Your task to perform on an android device: What time is it? Image 0: 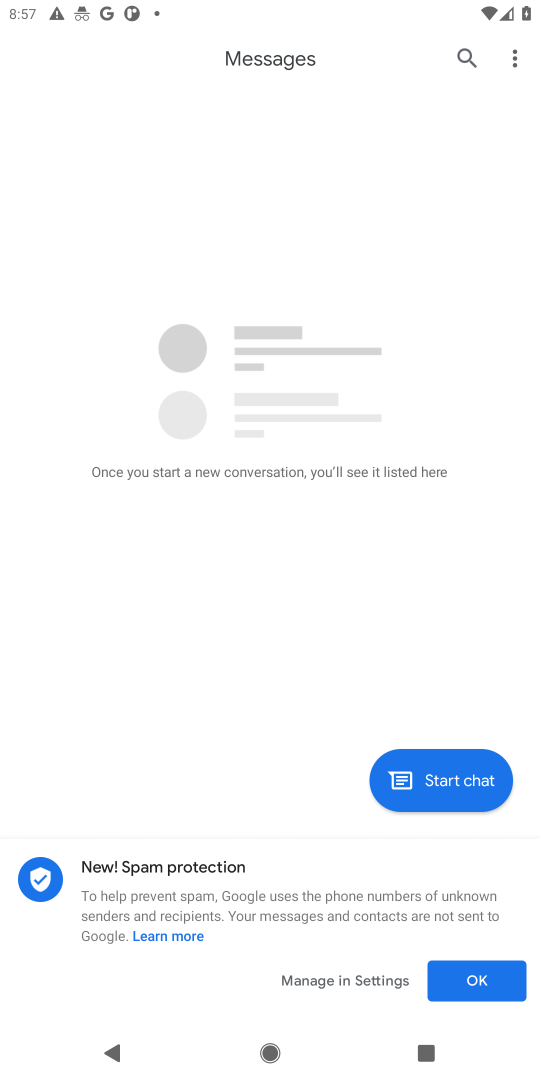
Step 0: press home button
Your task to perform on an android device: What time is it? Image 1: 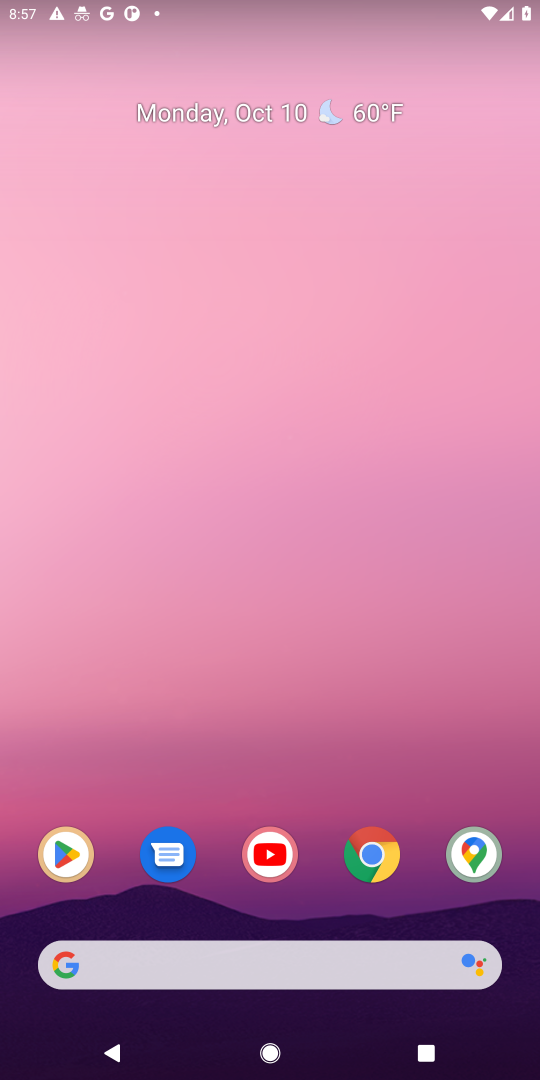
Step 1: click (377, 857)
Your task to perform on an android device: What time is it? Image 2: 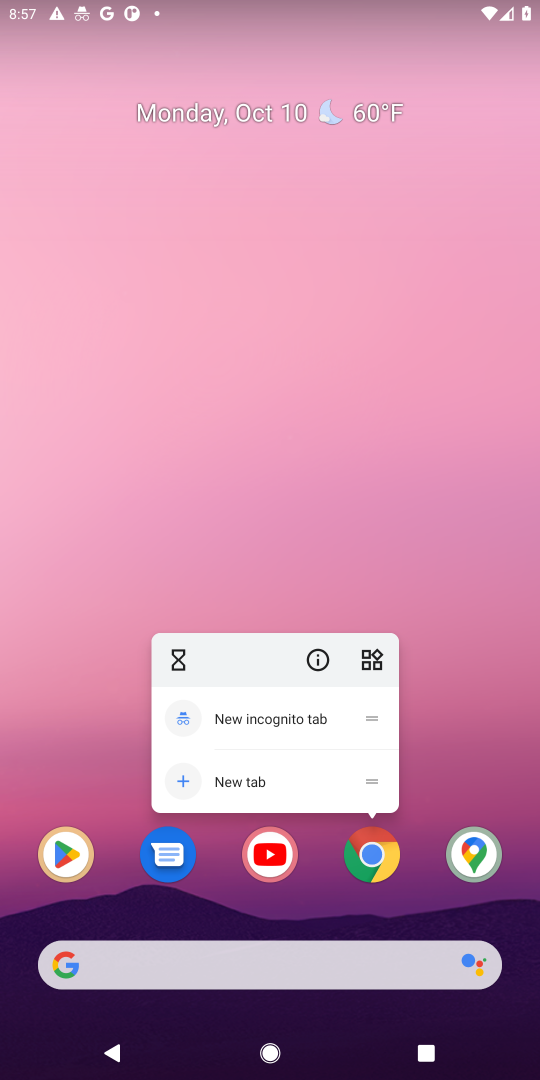
Step 2: click (366, 860)
Your task to perform on an android device: What time is it? Image 3: 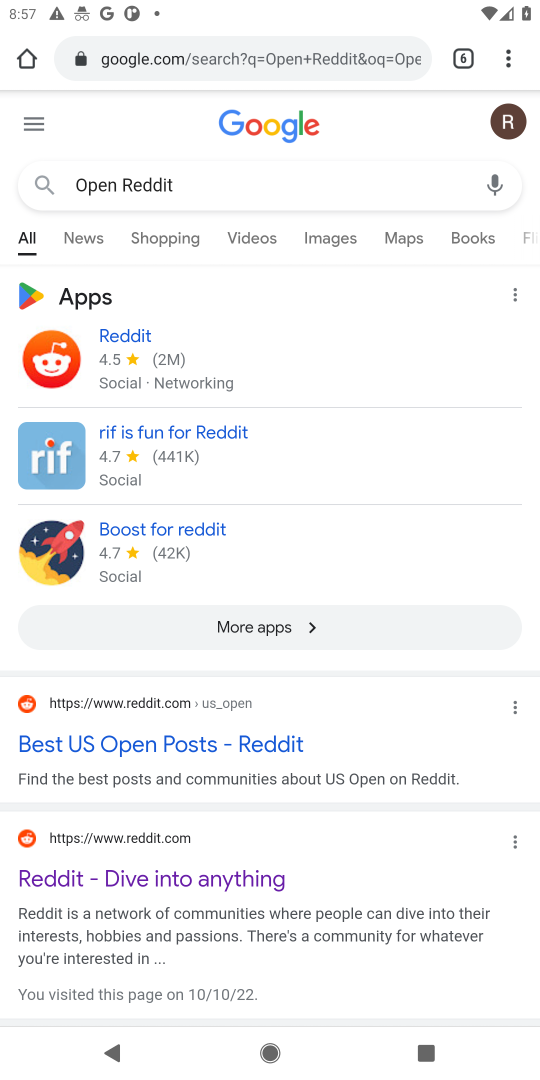
Step 3: click (306, 47)
Your task to perform on an android device: What time is it? Image 4: 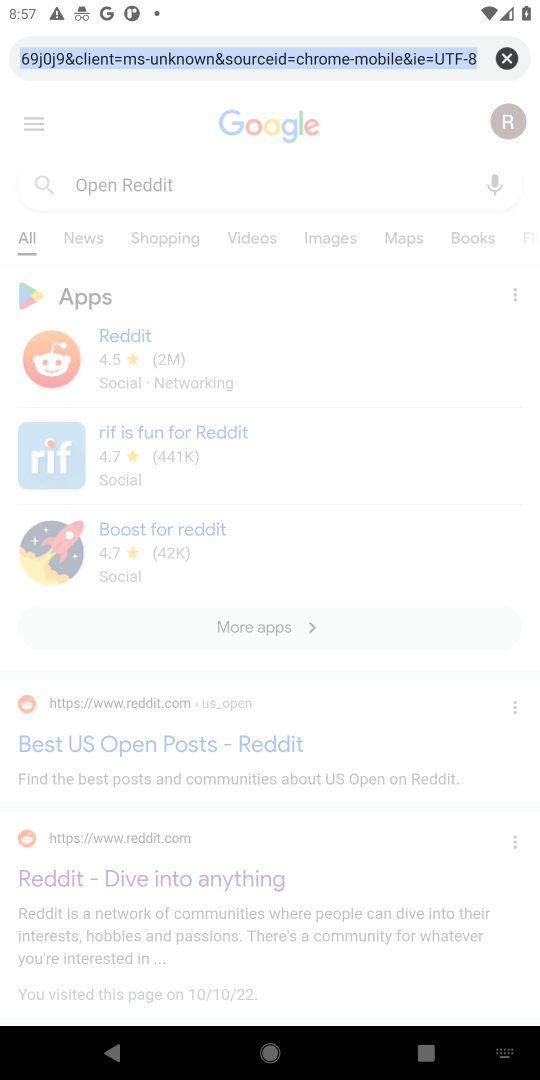
Step 4: click (500, 53)
Your task to perform on an android device: What time is it? Image 5: 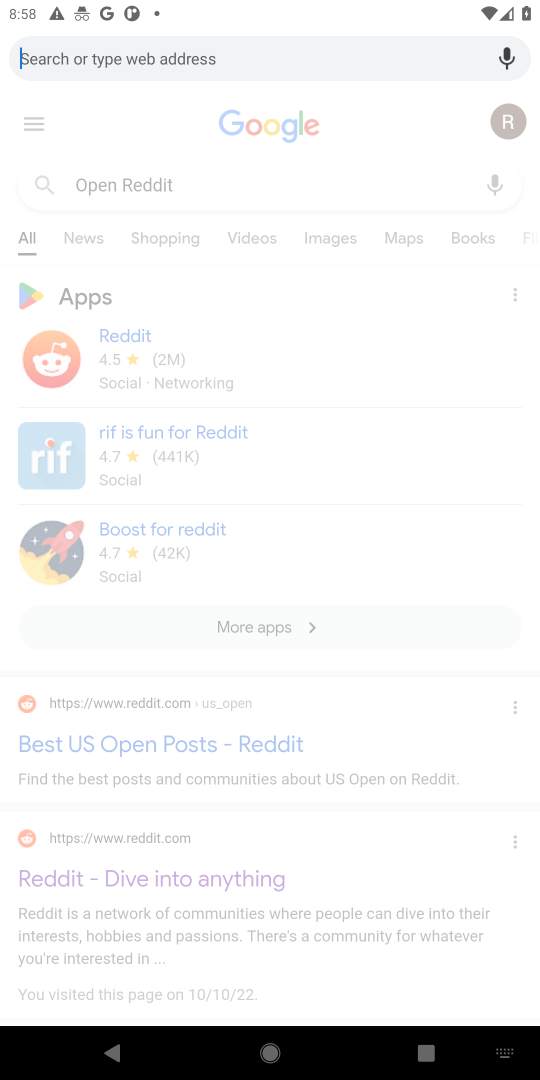
Step 5: type "What time is it"
Your task to perform on an android device: What time is it? Image 6: 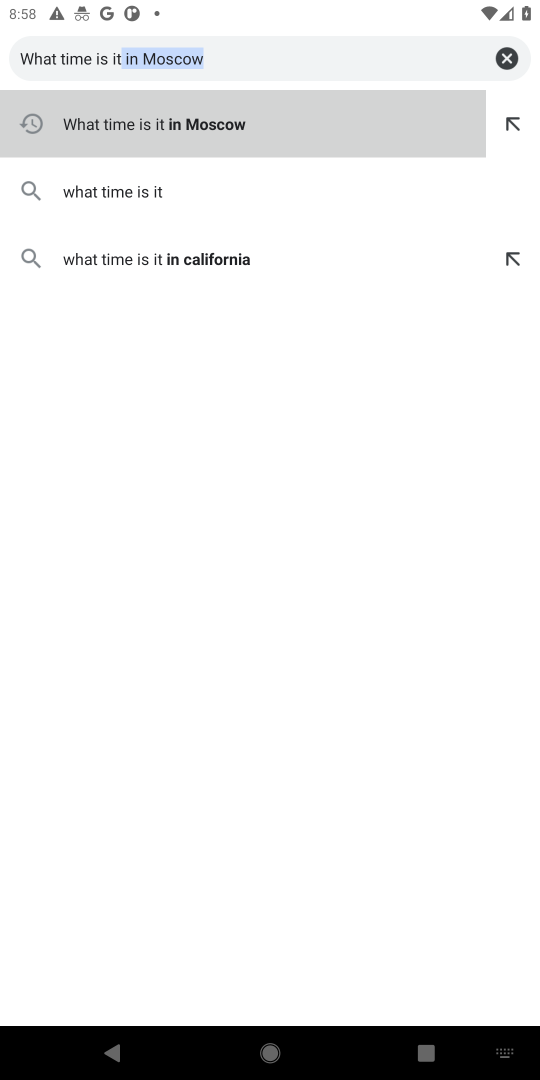
Step 6: press enter
Your task to perform on an android device: What time is it? Image 7: 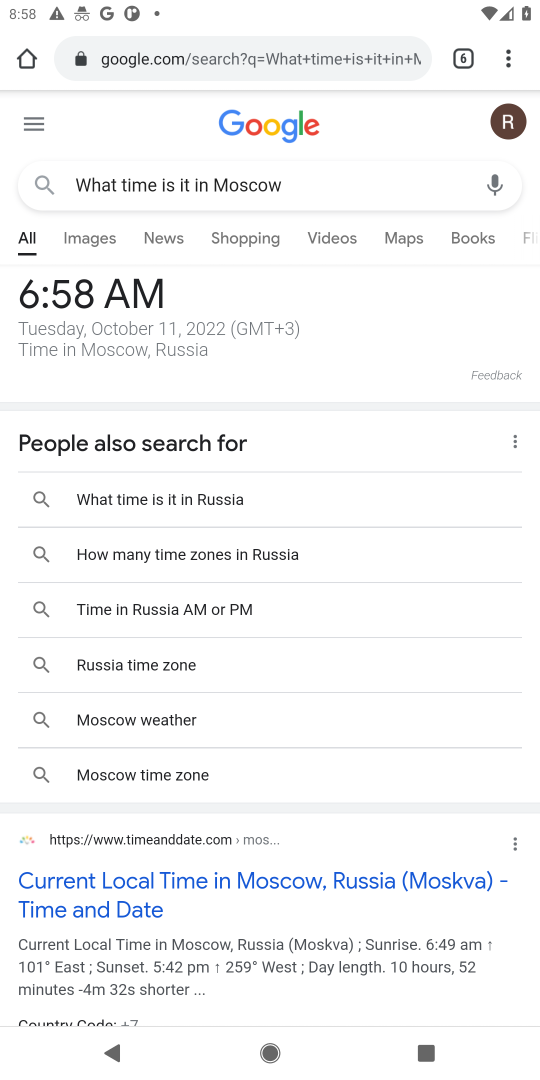
Step 7: task complete